Your task to perform on an android device: turn notification dots on Image 0: 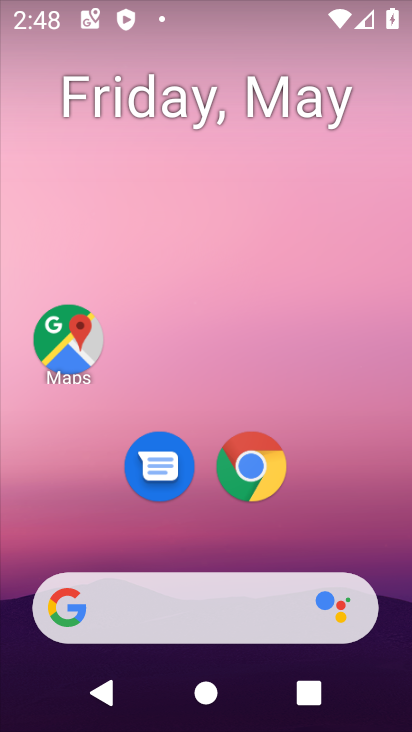
Step 0: drag from (218, 480) to (340, 42)
Your task to perform on an android device: turn notification dots on Image 1: 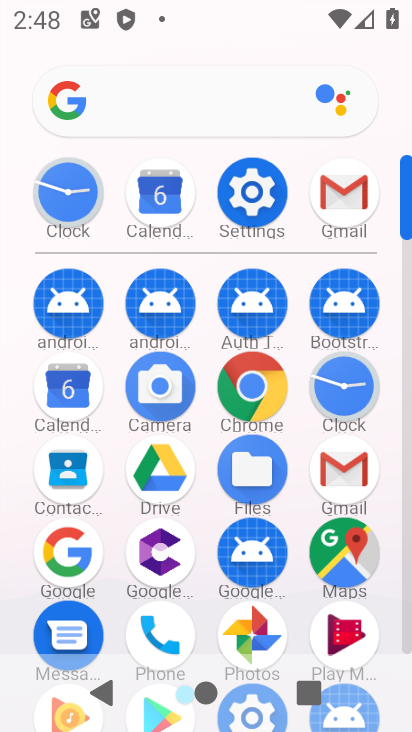
Step 1: click (232, 195)
Your task to perform on an android device: turn notification dots on Image 2: 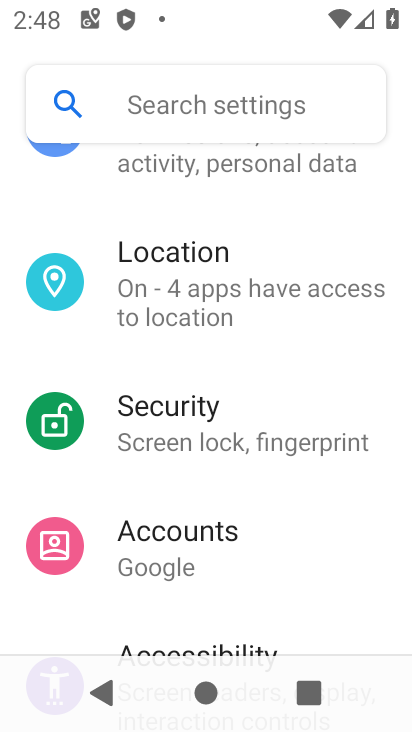
Step 2: drag from (238, 228) to (216, 724)
Your task to perform on an android device: turn notification dots on Image 3: 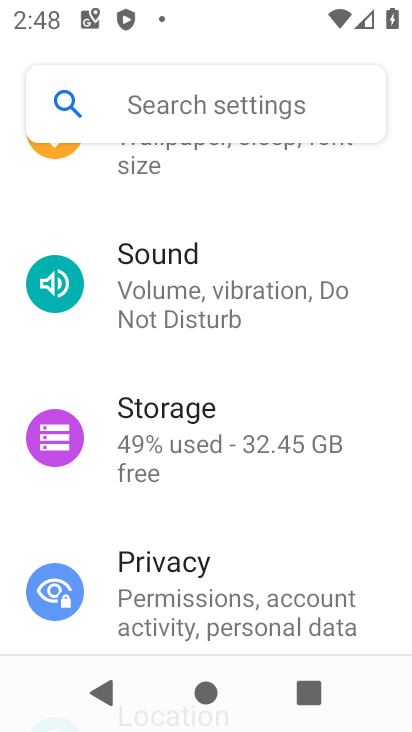
Step 3: drag from (215, 279) to (143, 725)
Your task to perform on an android device: turn notification dots on Image 4: 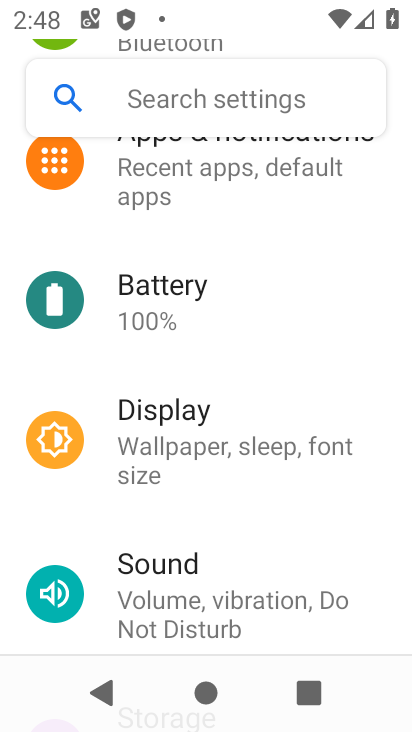
Step 4: drag from (223, 250) to (185, 606)
Your task to perform on an android device: turn notification dots on Image 5: 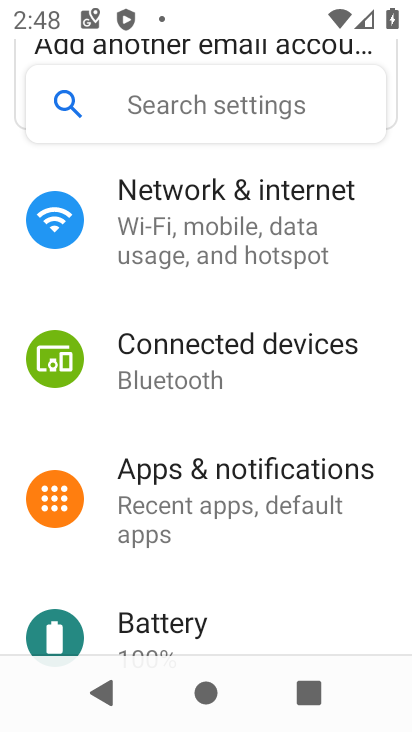
Step 5: click (202, 518)
Your task to perform on an android device: turn notification dots on Image 6: 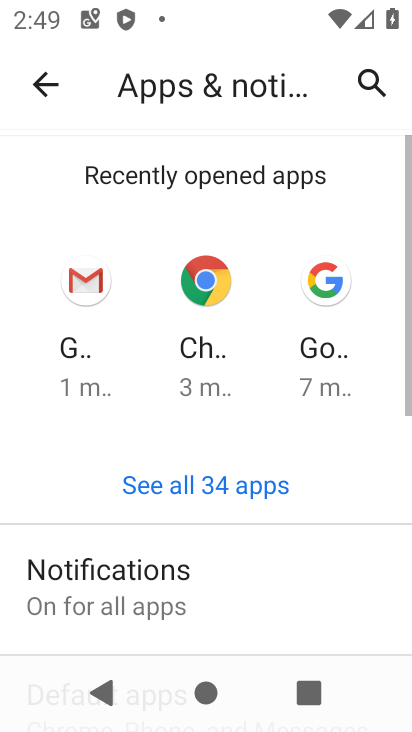
Step 6: drag from (186, 599) to (305, 190)
Your task to perform on an android device: turn notification dots on Image 7: 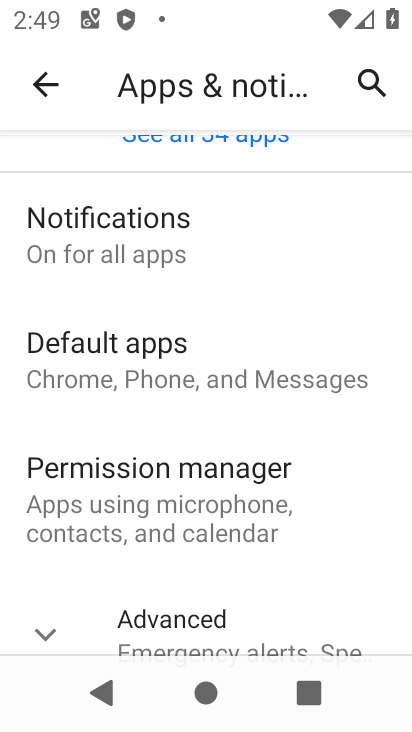
Step 7: click (151, 244)
Your task to perform on an android device: turn notification dots on Image 8: 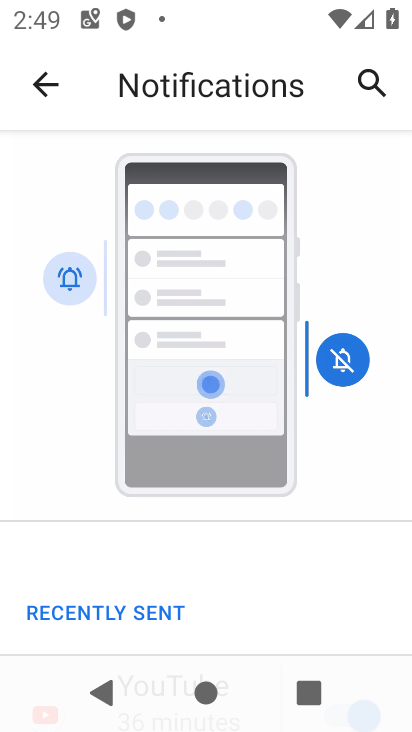
Step 8: drag from (185, 558) to (354, 25)
Your task to perform on an android device: turn notification dots on Image 9: 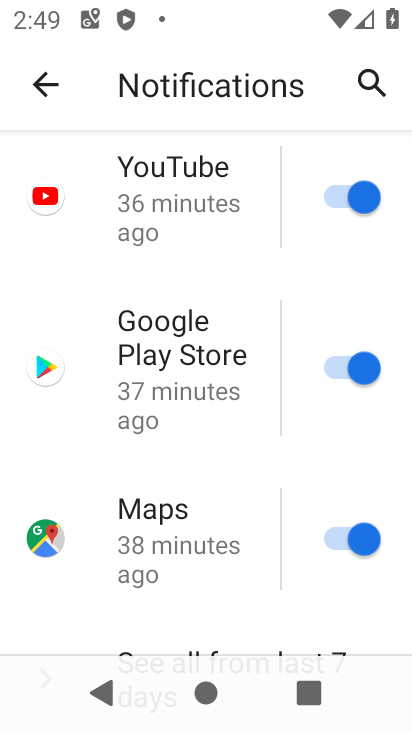
Step 9: drag from (169, 638) to (290, 144)
Your task to perform on an android device: turn notification dots on Image 10: 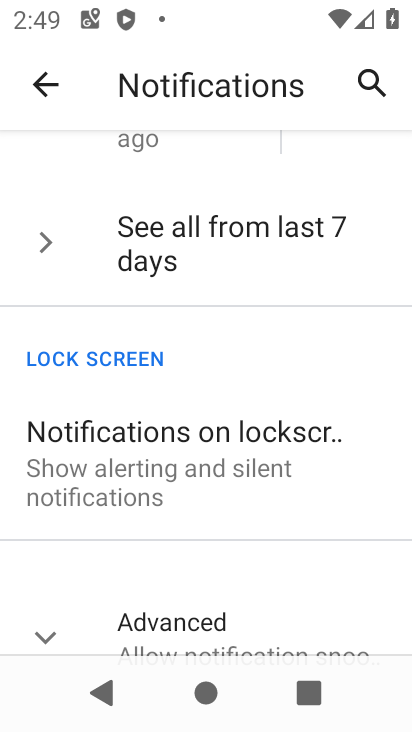
Step 10: drag from (217, 618) to (314, 237)
Your task to perform on an android device: turn notification dots on Image 11: 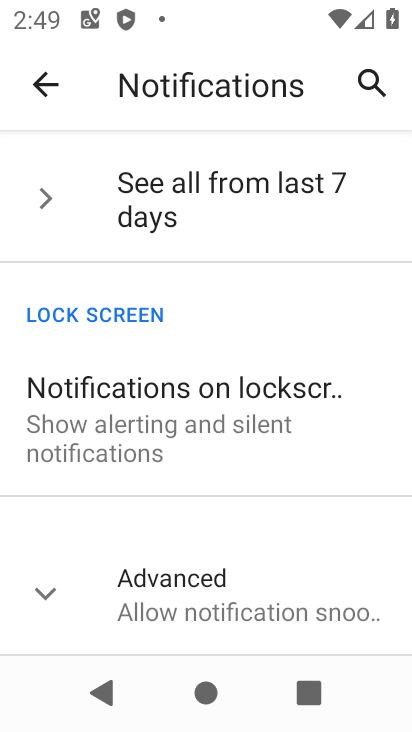
Step 11: click (171, 597)
Your task to perform on an android device: turn notification dots on Image 12: 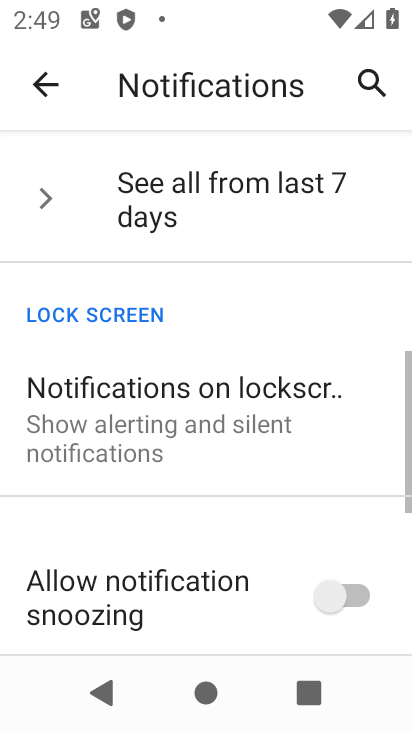
Step 12: task complete